Your task to perform on an android device: Go to wifi settings Image 0: 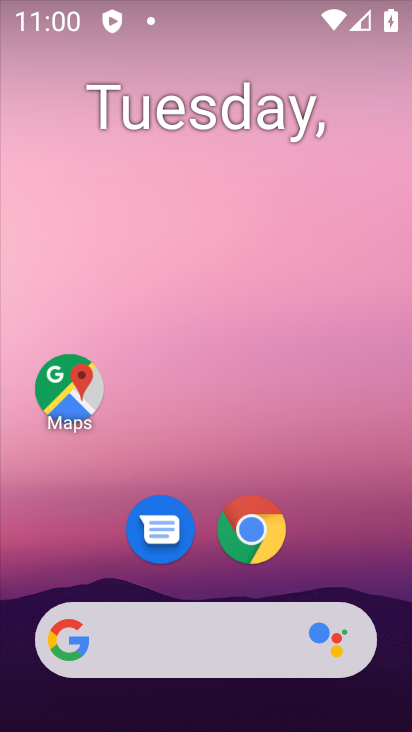
Step 0: drag from (321, 554) to (214, 122)
Your task to perform on an android device: Go to wifi settings Image 1: 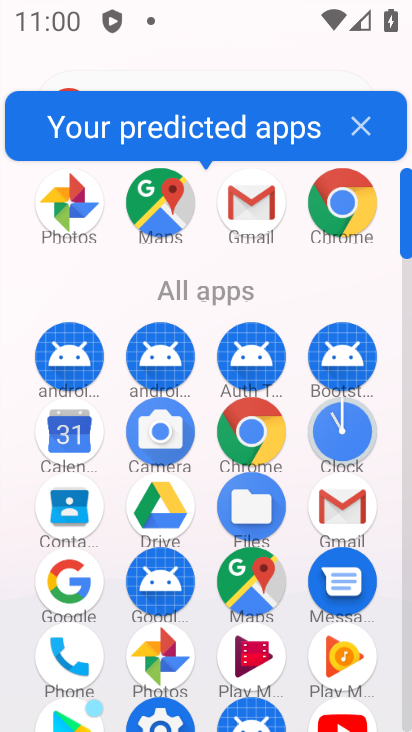
Step 1: drag from (403, 215) to (401, 252)
Your task to perform on an android device: Go to wifi settings Image 2: 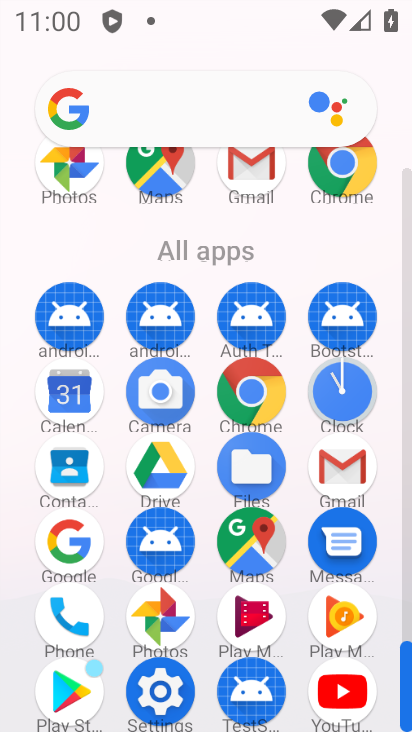
Step 2: click (160, 711)
Your task to perform on an android device: Go to wifi settings Image 3: 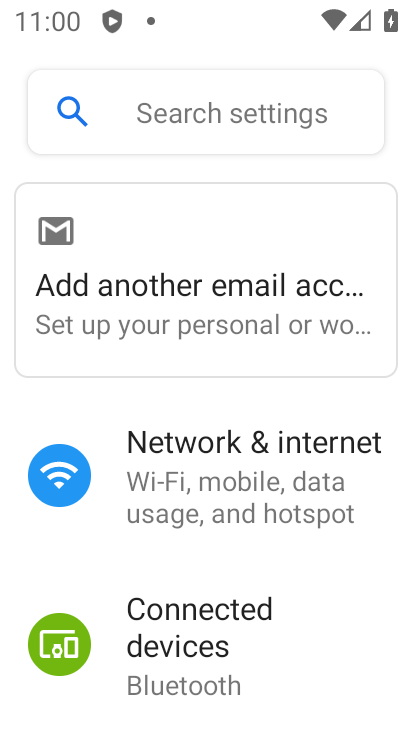
Step 3: click (228, 478)
Your task to perform on an android device: Go to wifi settings Image 4: 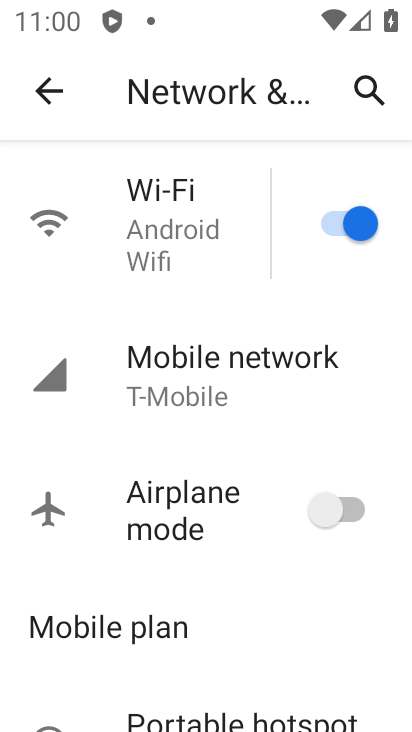
Step 4: click (148, 243)
Your task to perform on an android device: Go to wifi settings Image 5: 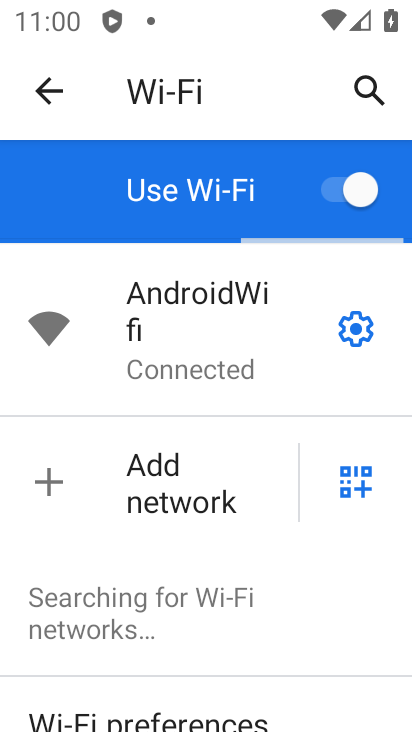
Step 5: task complete